Your task to perform on an android device: turn off javascript in the chrome app Image 0: 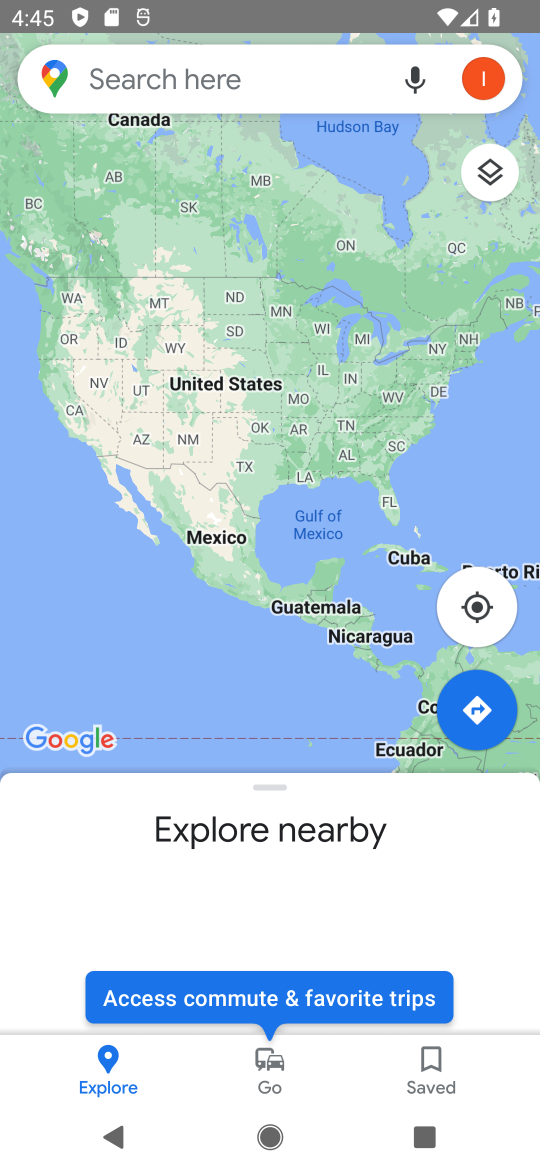
Step 0: press home button
Your task to perform on an android device: turn off javascript in the chrome app Image 1: 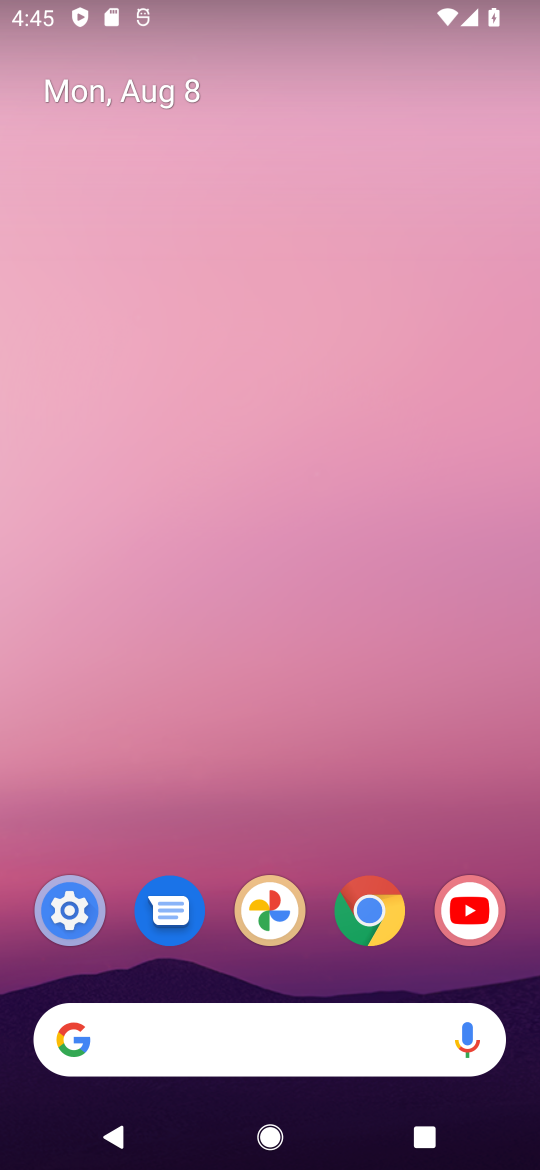
Step 1: click (372, 913)
Your task to perform on an android device: turn off javascript in the chrome app Image 2: 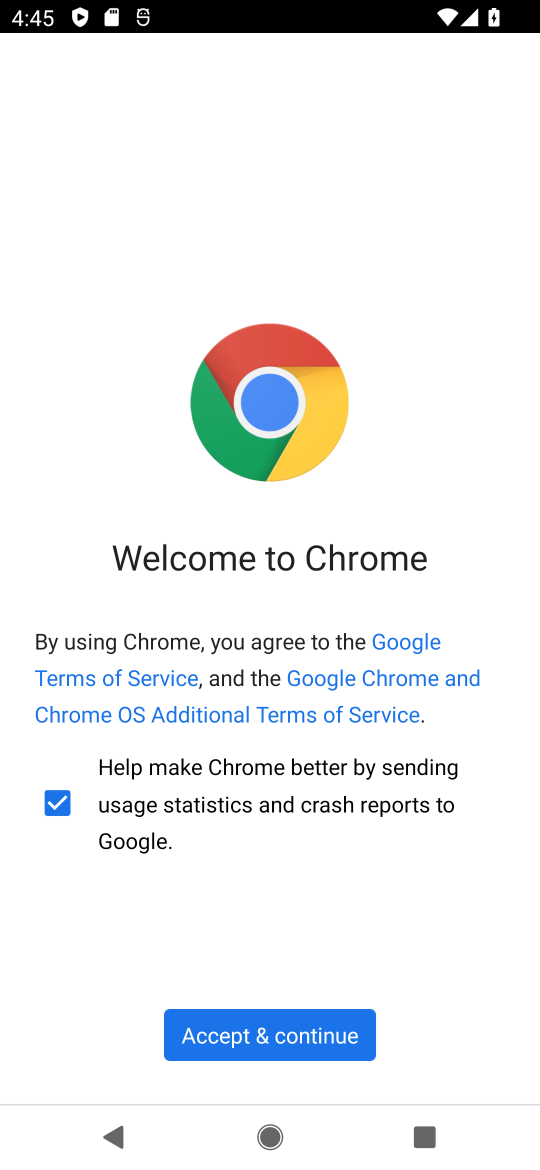
Step 2: click (265, 1038)
Your task to perform on an android device: turn off javascript in the chrome app Image 3: 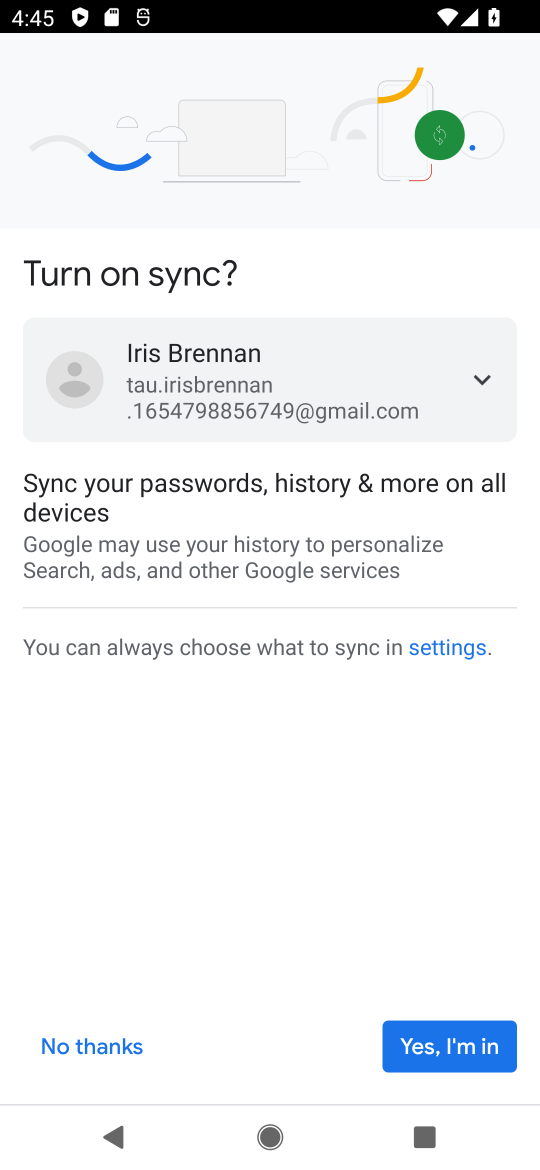
Step 3: click (478, 1055)
Your task to perform on an android device: turn off javascript in the chrome app Image 4: 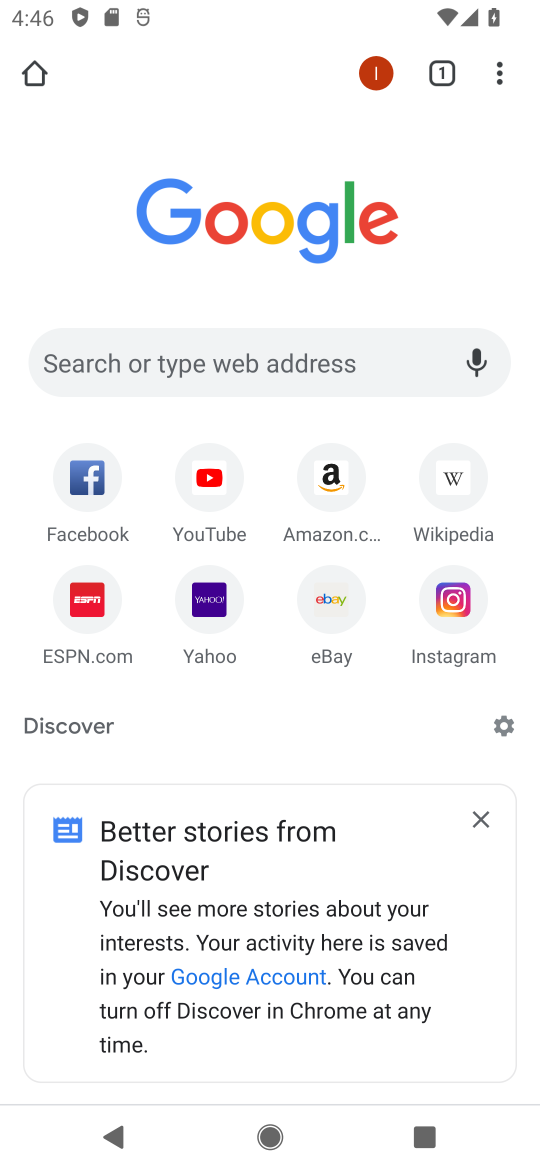
Step 4: click (500, 77)
Your task to perform on an android device: turn off javascript in the chrome app Image 5: 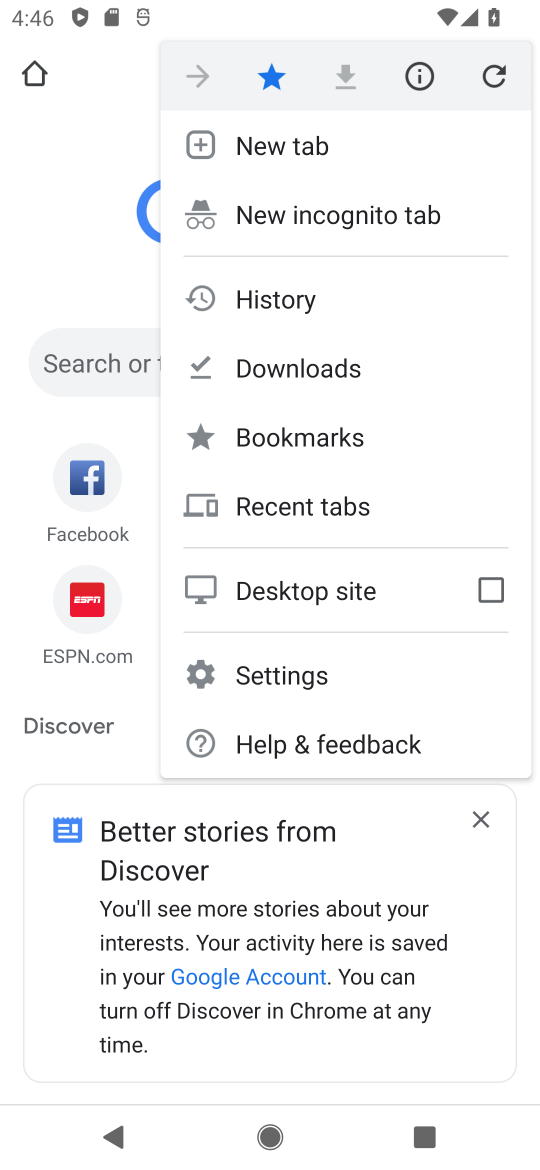
Step 5: click (291, 666)
Your task to perform on an android device: turn off javascript in the chrome app Image 6: 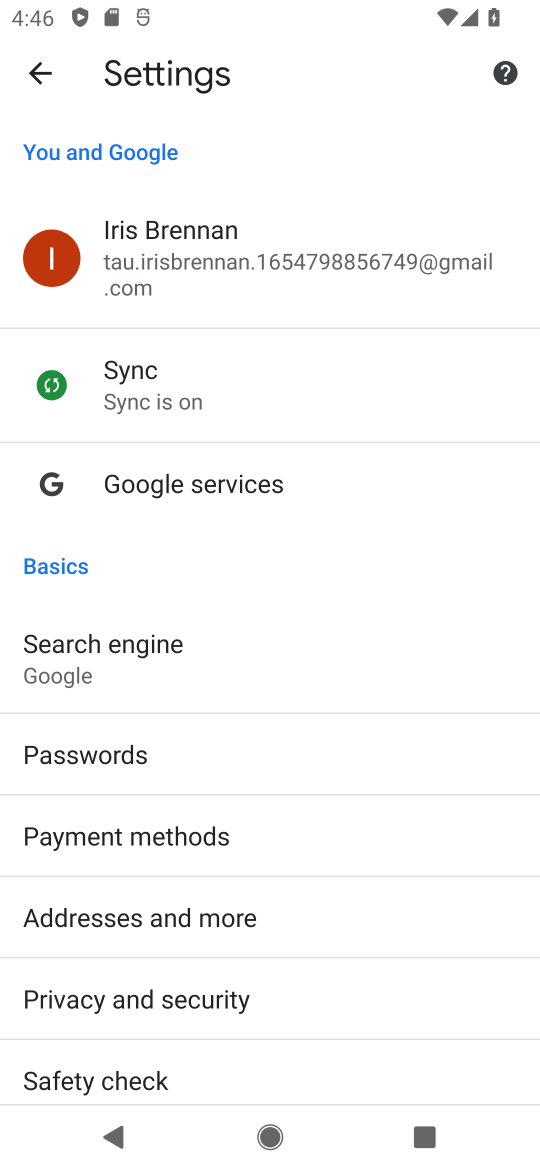
Step 6: drag from (149, 858) to (225, 682)
Your task to perform on an android device: turn off javascript in the chrome app Image 7: 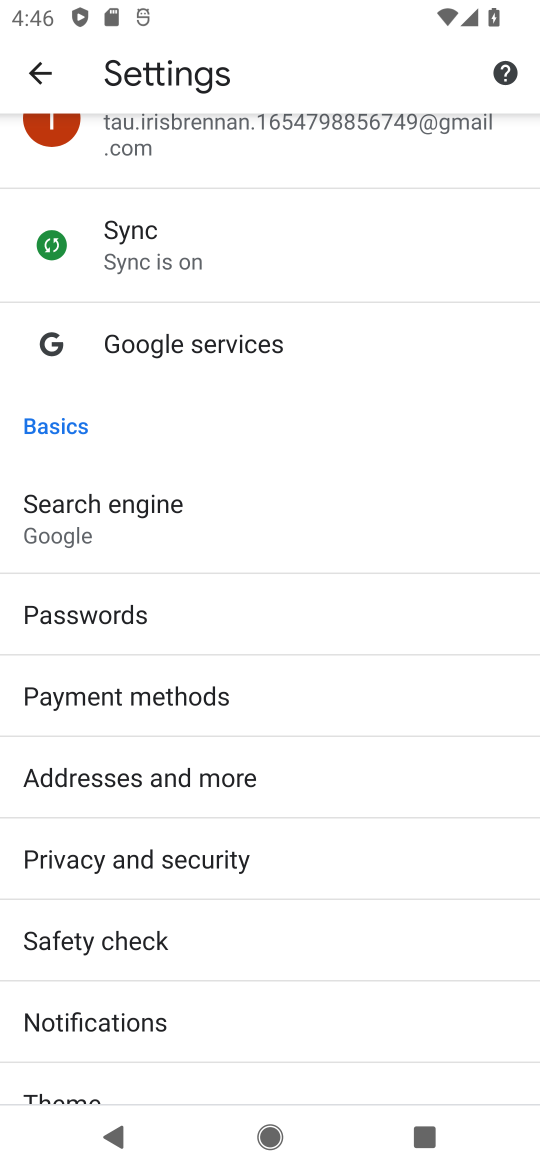
Step 7: drag from (148, 880) to (192, 785)
Your task to perform on an android device: turn off javascript in the chrome app Image 8: 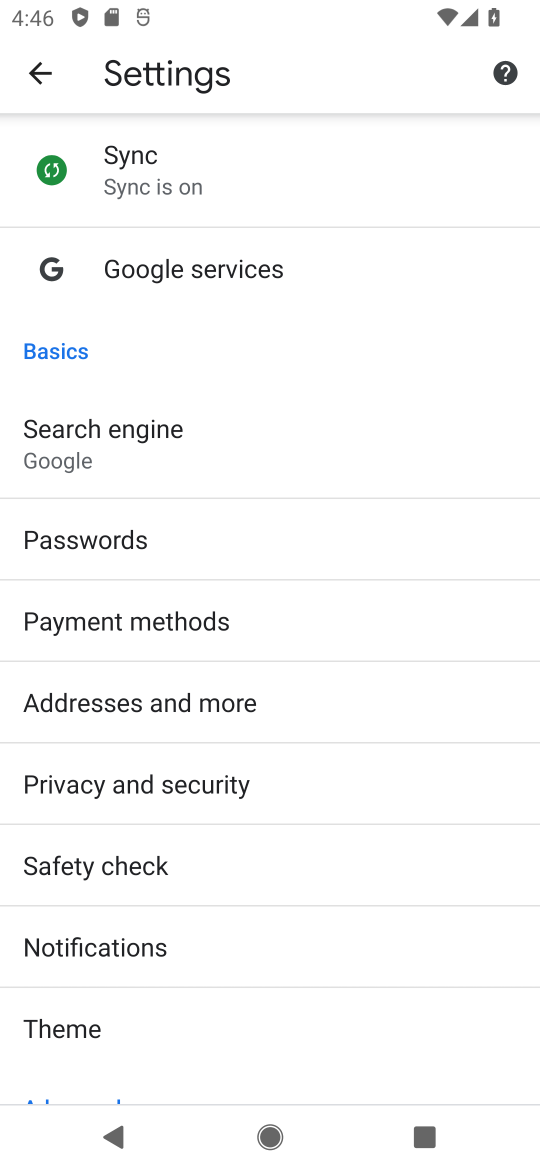
Step 8: drag from (135, 850) to (200, 709)
Your task to perform on an android device: turn off javascript in the chrome app Image 9: 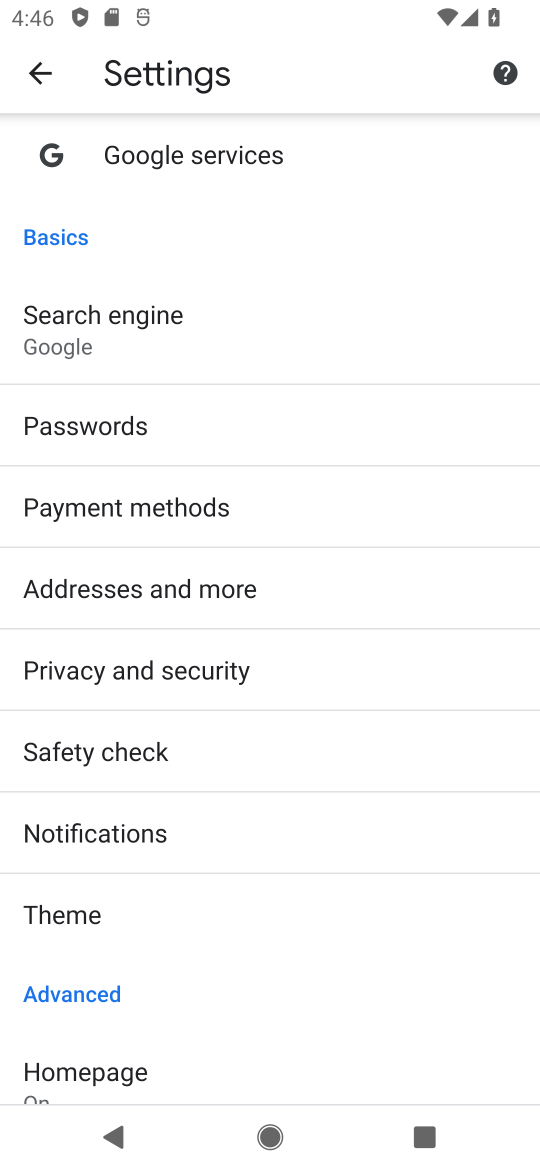
Step 9: drag from (153, 778) to (266, 623)
Your task to perform on an android device: turn off javascript in the chrome app Image 10: 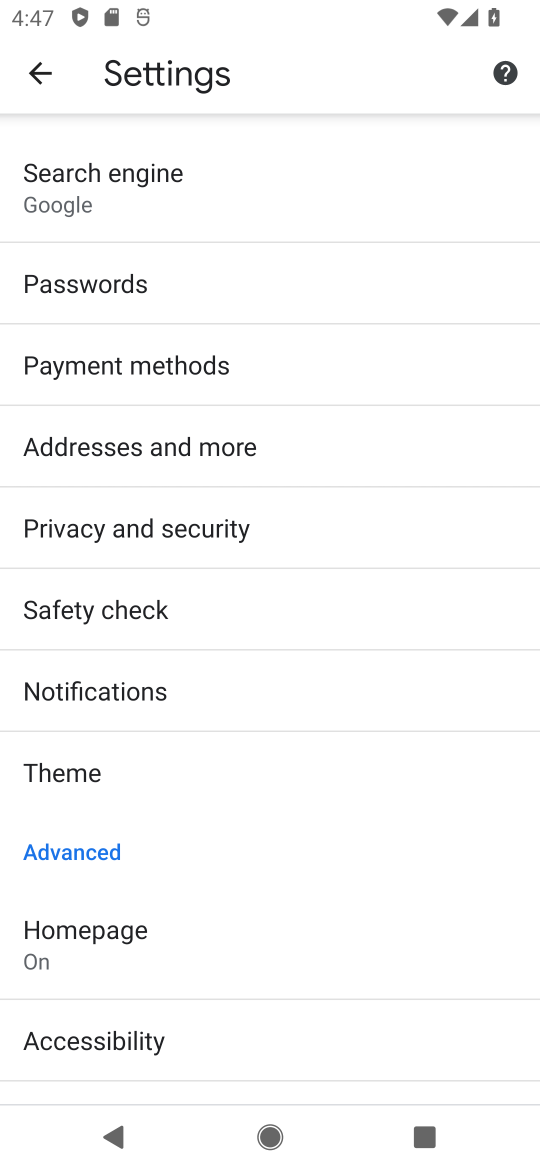
Step 10: drag from (170, 739) to (259, 593)
Your task to perform on an android device: turn off javascript in the chrome app Image 11: 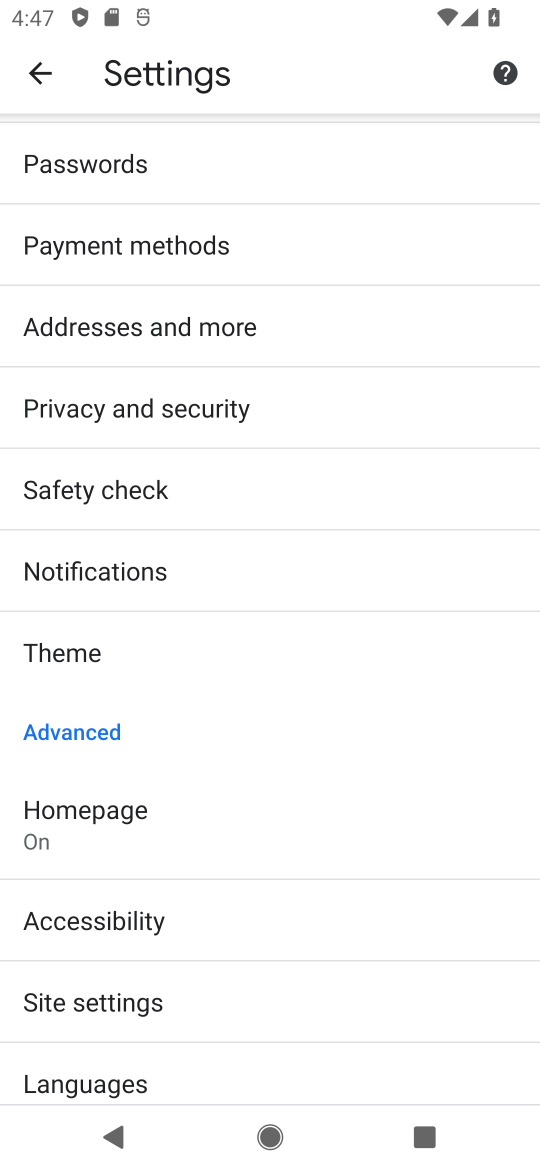
Step 11: drag from (164, 699) to (215, 569)
Your task to perform on an android device: turn off javascript in the chrome app Image 12: 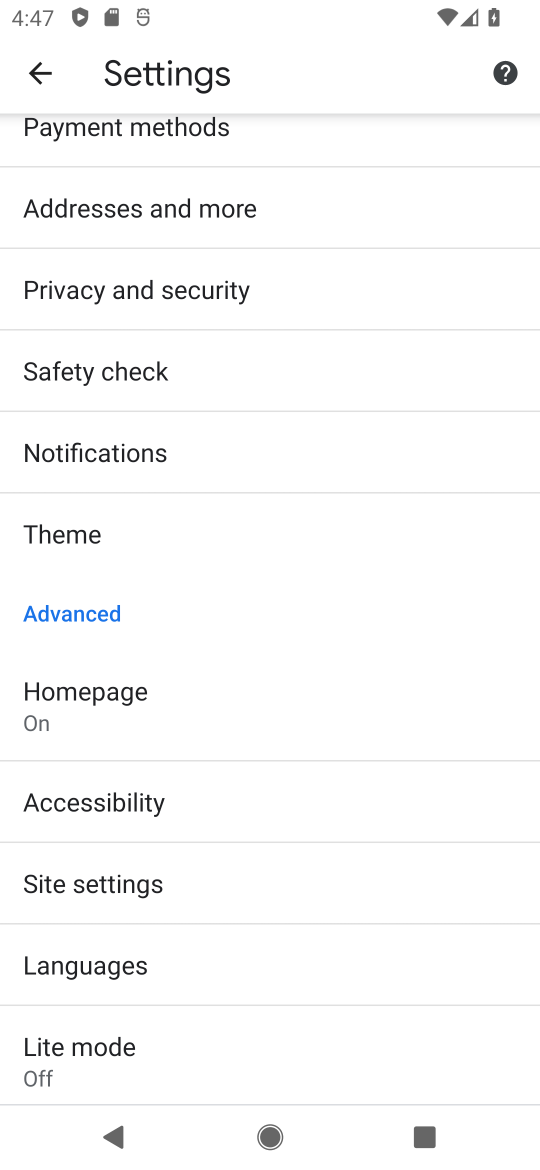
Step 12: drag from (184, 742) to (244, 597)
Your task to perform on an android device: turn off javascript in the chrome app Image 13: 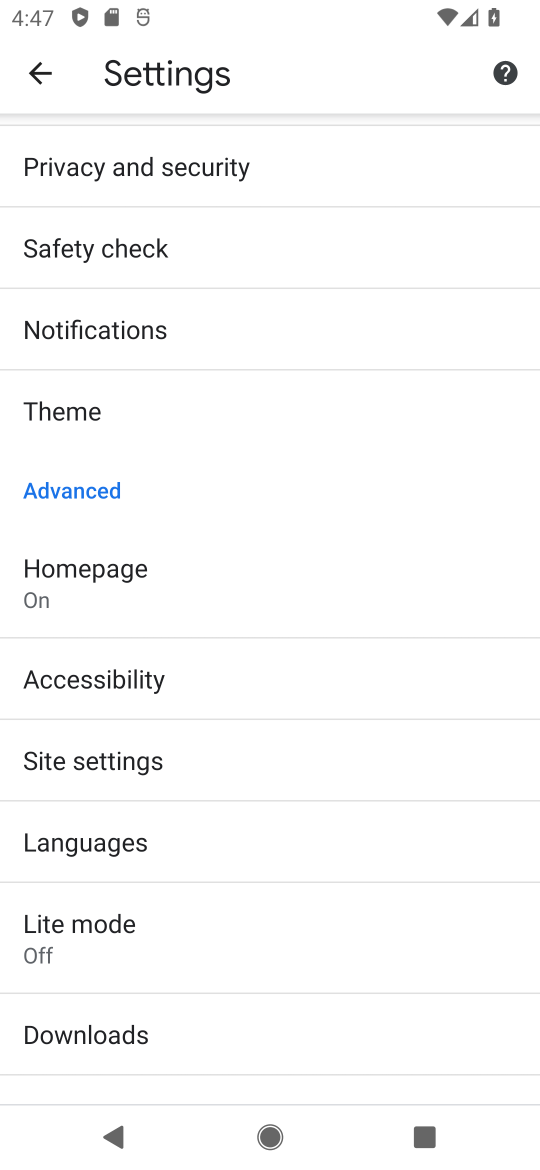
Step 13: click (122, 754)
Your task to perform on an android device: turn off javascript in the chrome app Image 14: 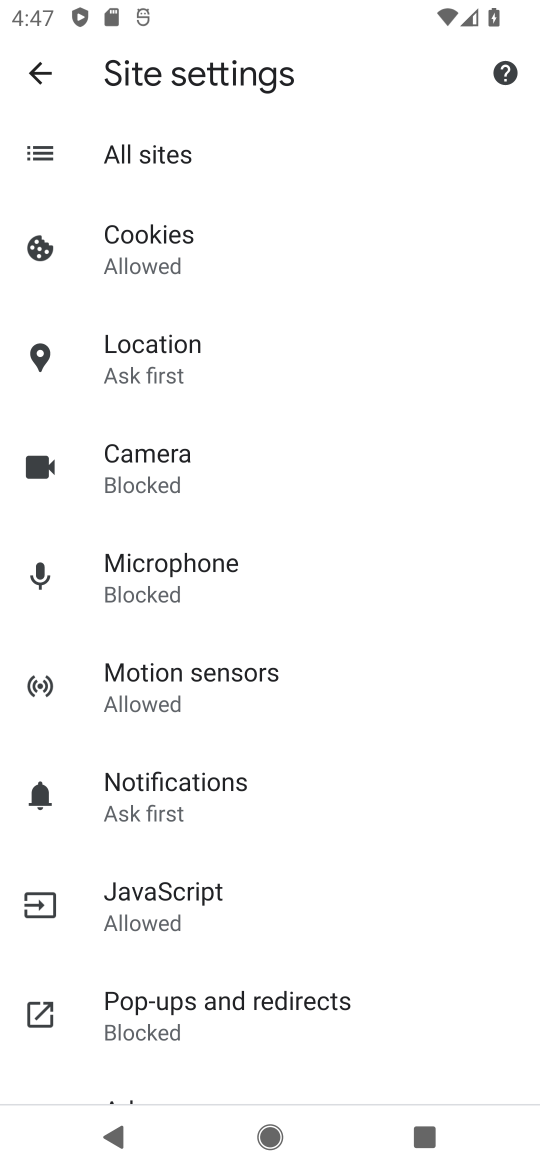
Step 14: click (180, 889)
Your task to perform on an android device: turn off javascript in the chrome app Image 15: 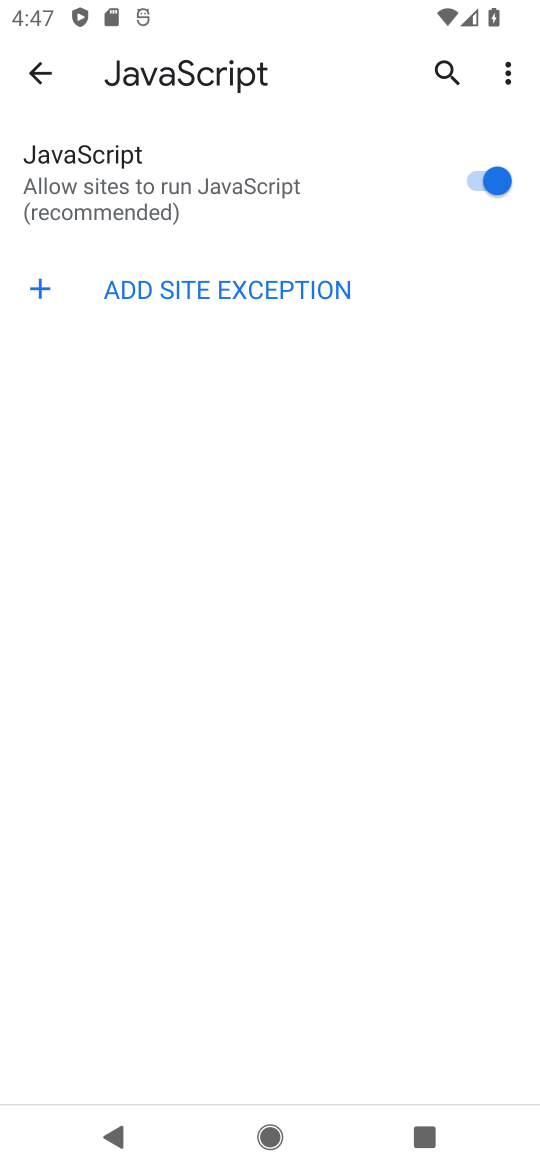
Step 15: click (474, 165)
Your task to perform on an android device: turn off javascript in the chrome app Image 16: 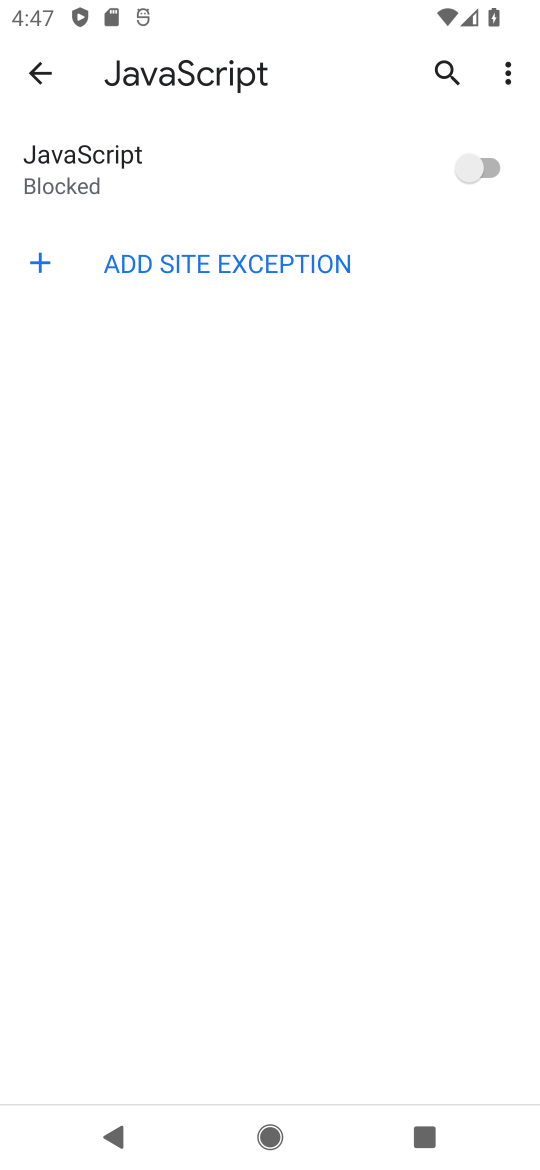
Step 16: task complete